Your task to perform on an android device: Go to eBay Image 0: 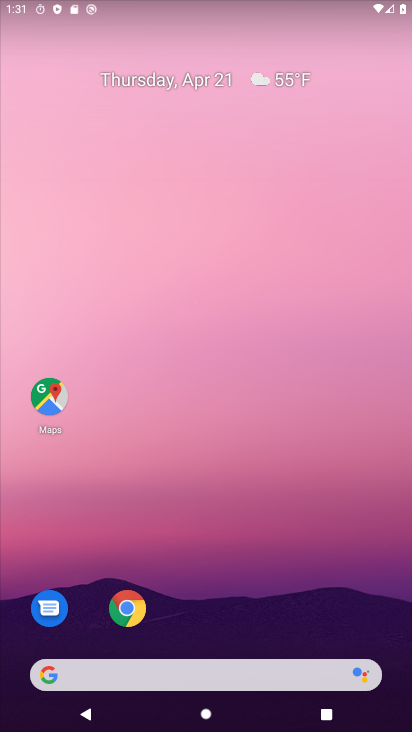
Step 0: click (128, 611)
Your task to perform on an android device: Go to eBay Image 1: 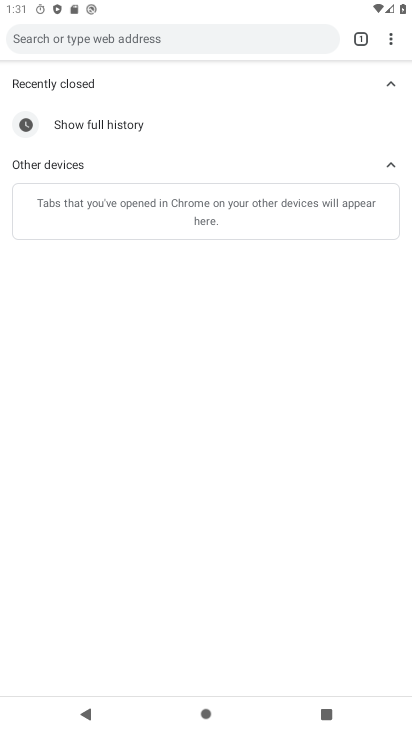
Step 1: click (360, 42)
Your task to perform on an android device: Go to eBay Image 2: 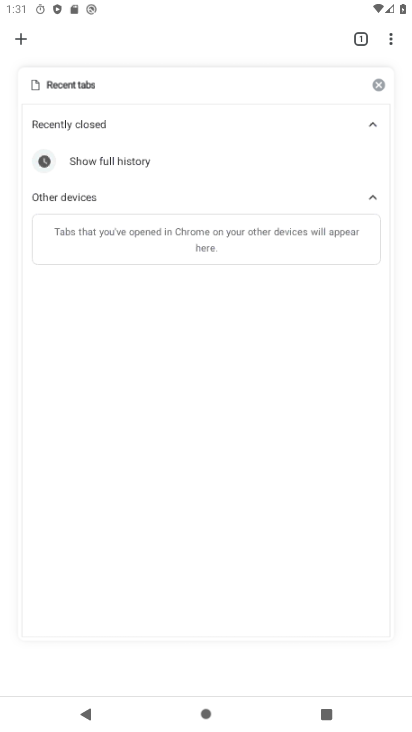
Step 2: click (15, 42)
Your task to perform on an android device: Go to eBay Image 3: 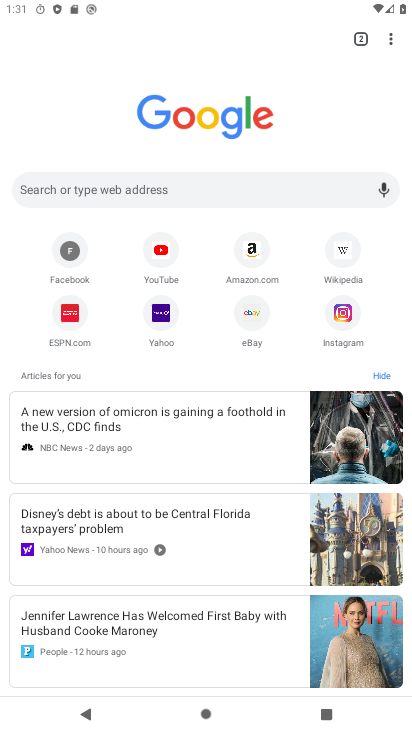
Step 3: click (259, 305)
Your task to perform on an android device: Go to eBay Image 4: 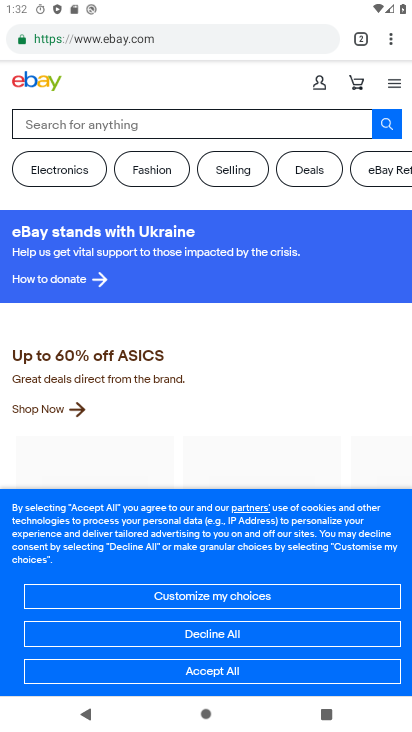
Step 4: task complete